Your task to perform on an android device: find which apps use the phone's location Image 0: 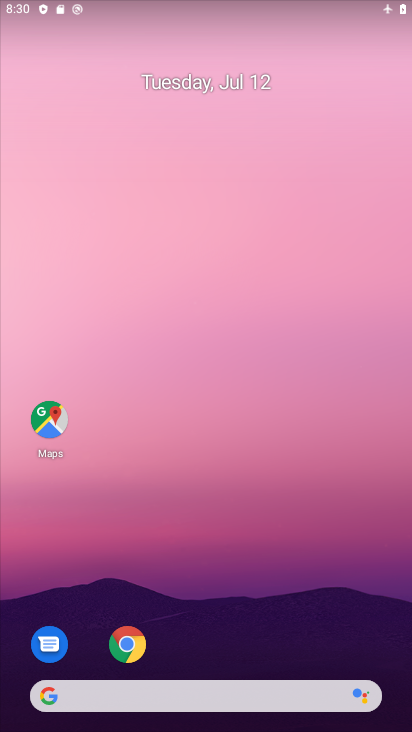
Step 0: drag from (217, 642) to (194, 94)
Your task to perform on an android device: find which apps use the phone's location Image 1: 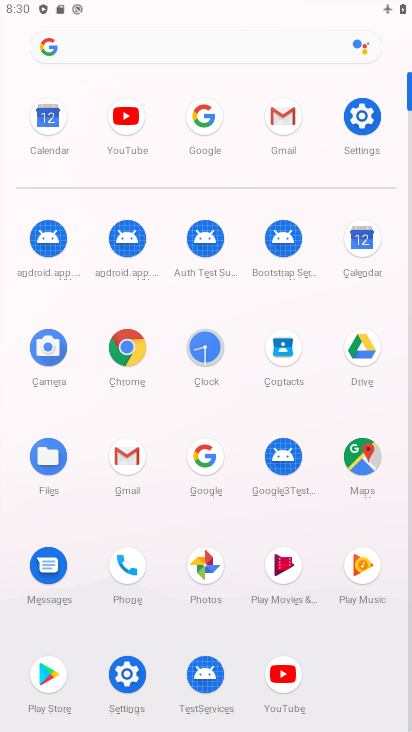
Step 1: click (360, 125)
Your task to perform on an android device: find which apps use the phone's location Image 2: 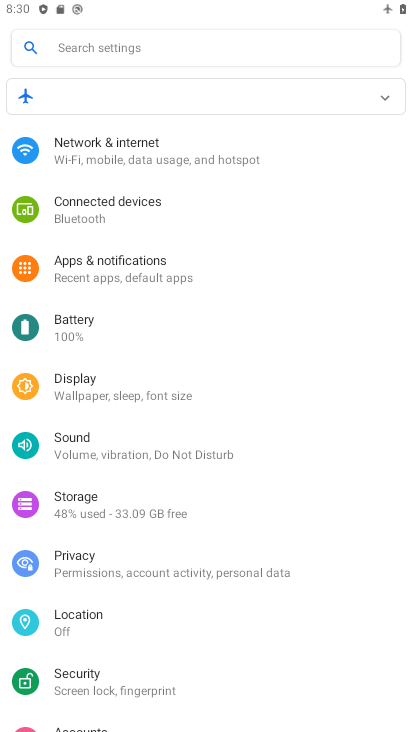
Step 2: click (86, 624)
Your task to perform on an android device: find which apps use the phone's location Image 3: 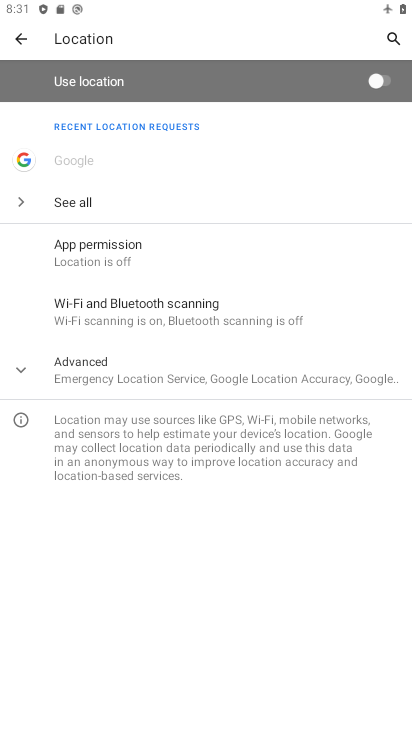
Step 3: click (104, 246)
Your task to perform on an android device: find which apps use the phone's location Image 4: 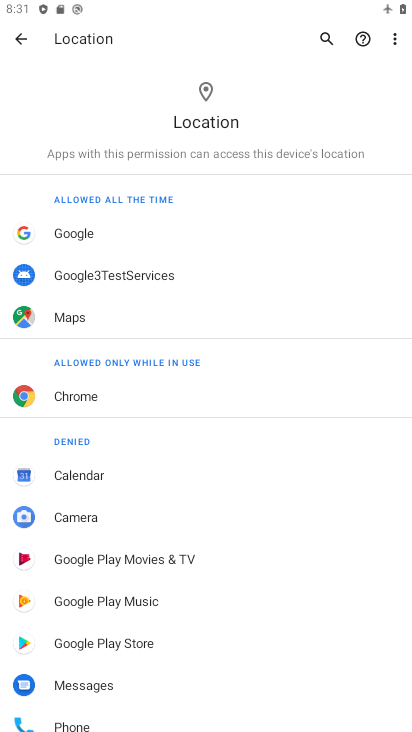
Step 4: task complete